Your task to perform on an android device: create a new album in the google photos Image 0: 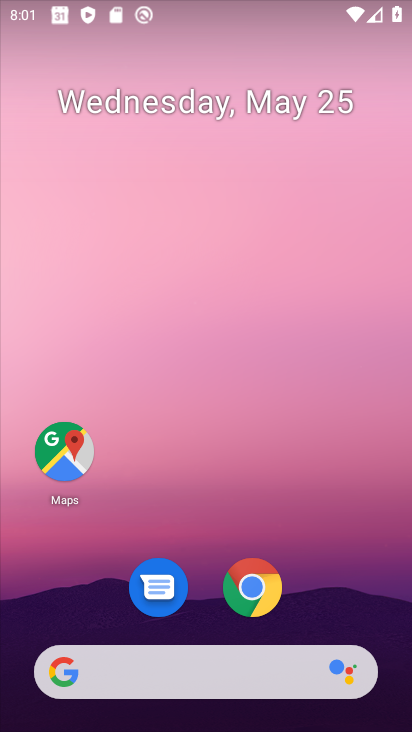
Step 0: drag from (297, 604) to (321, 126)
Your task to perform on an android device: create a new album in the google photos Image 1: 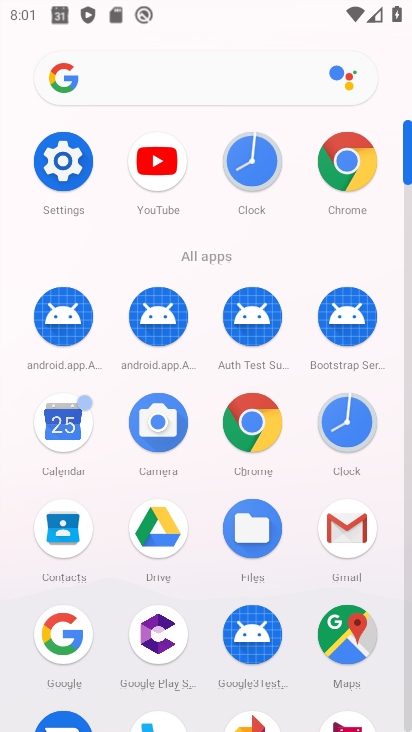
Step 1: drag from (294, 280) to (323, 32)
Your task to perform on an android device: create a new album in the google photos Image 2: 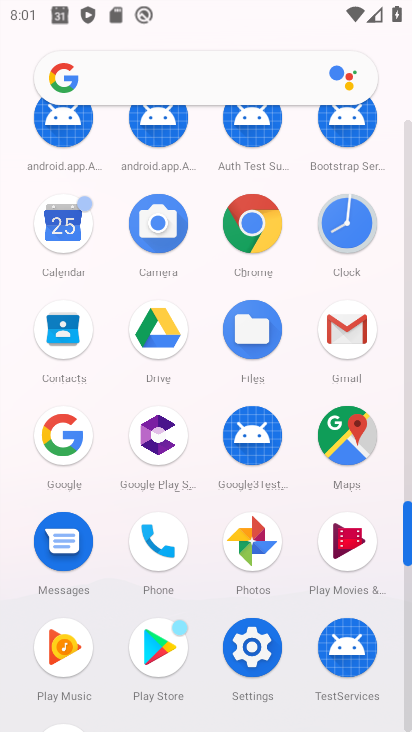
Step 2: click (248, 541)
Your task to perform on an android device: create a new album in the google photos Image 3: 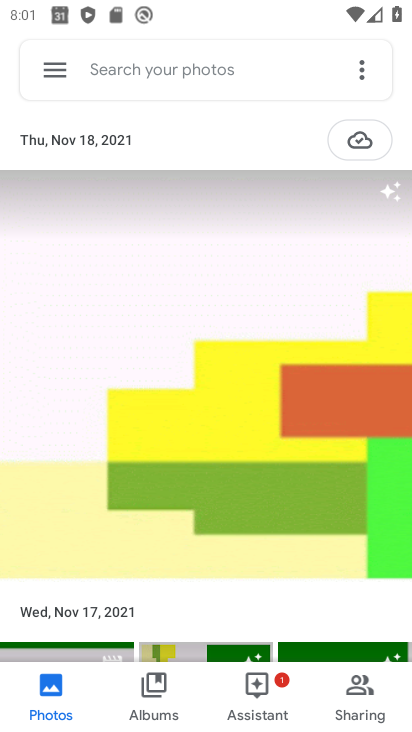
Step 3: drag from (154, 606) to (221, 389)
Your task to perform on an android device: create a new album in the google photos Image 4: 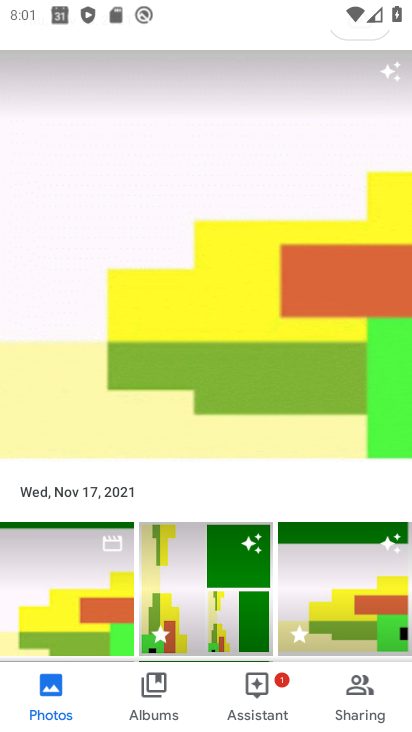
Step 4: click (59, 626)
Your task to perform on an android device: create a new album in the google photos Image 5: 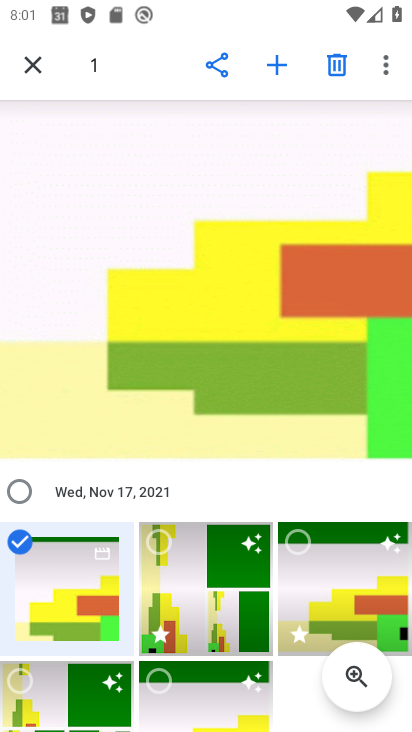
Step 5: click (157, 540)
Your task to perform on an android device: create a new album in the google photos Image 6: 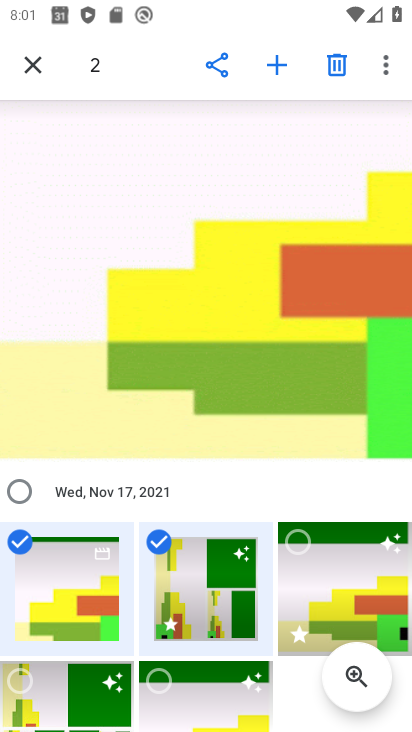
Step 6: click (290, 544)
Your task to perform on an android device: create a new album in the google photos Image 7: 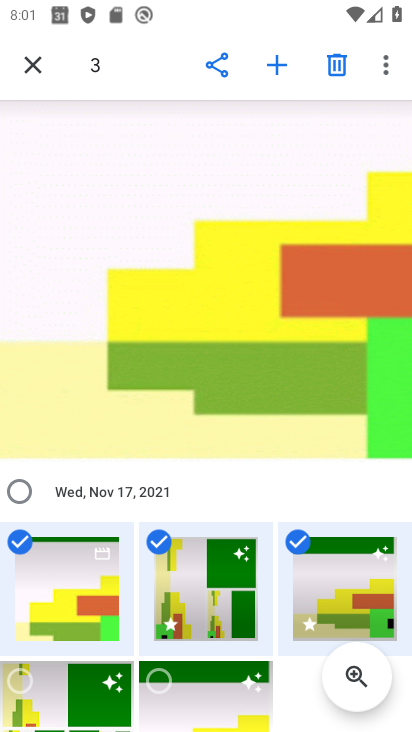
Step 7: click (274, 63)
Your task to perform on an android device: create a new album in the google photos Image 8: 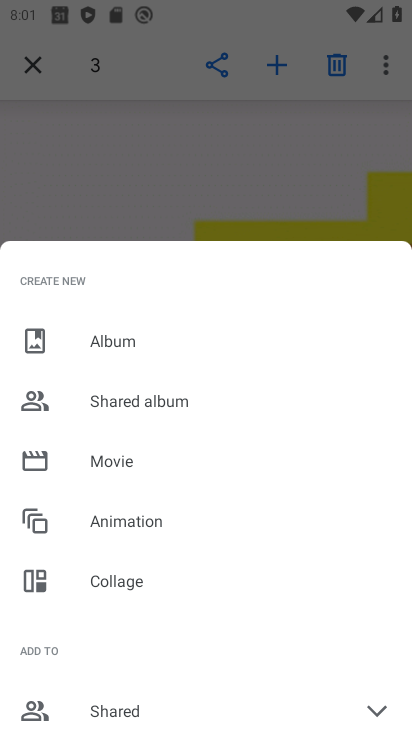
Step 8: click (102, 345)
Your task to perform on an android device: create a new album in the google photos Image 9: 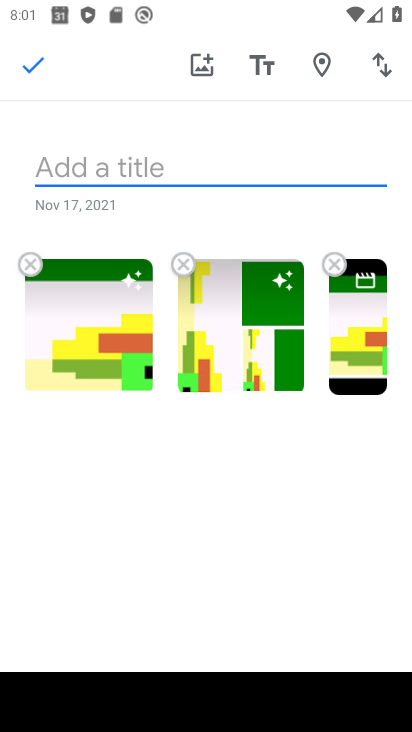
Step 9: type "kgf"
Your task to perform on an android device: create a new album in the google photos Image 10: 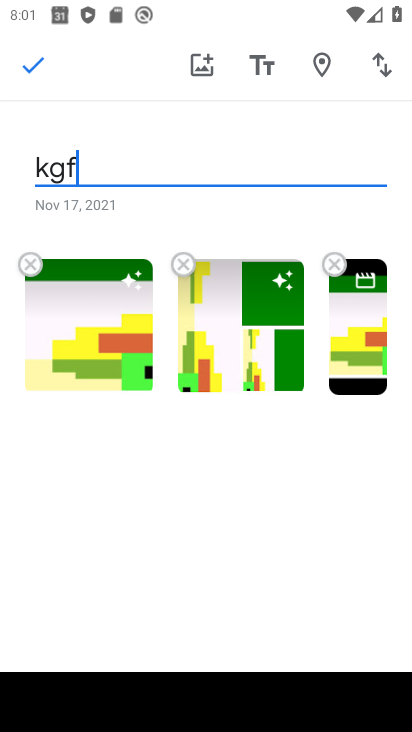
Step 10: click (35, 61)
Your task to perform on an android device: create a new album in the google photos Image 11: 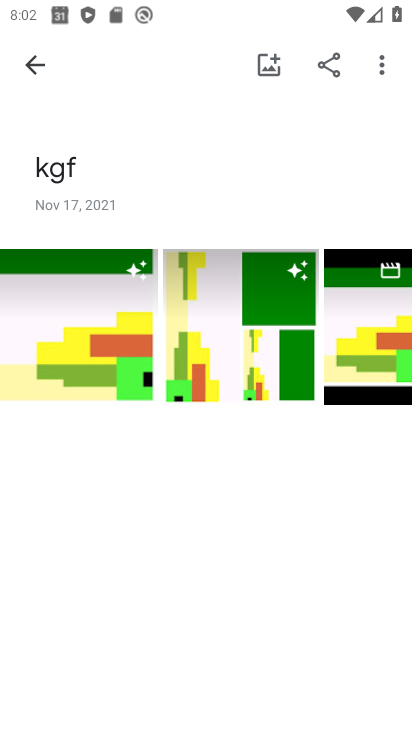
Step 11: task complete